Your task to perform on an android device: Open Wikipedia Image 0: 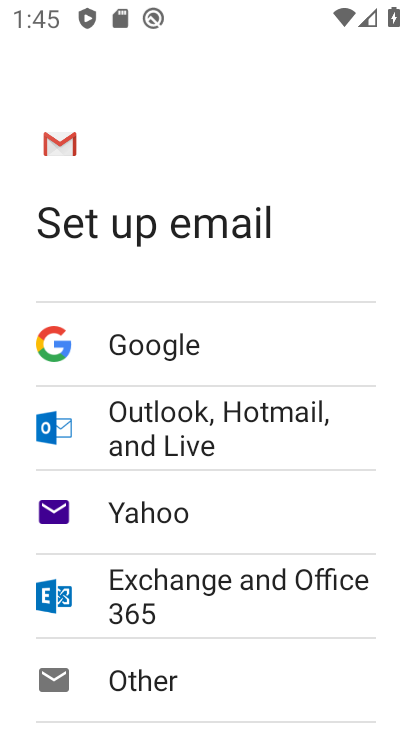
Step 0: press back button
Your task to perform on an android device: Open Wikipedia Image 1: 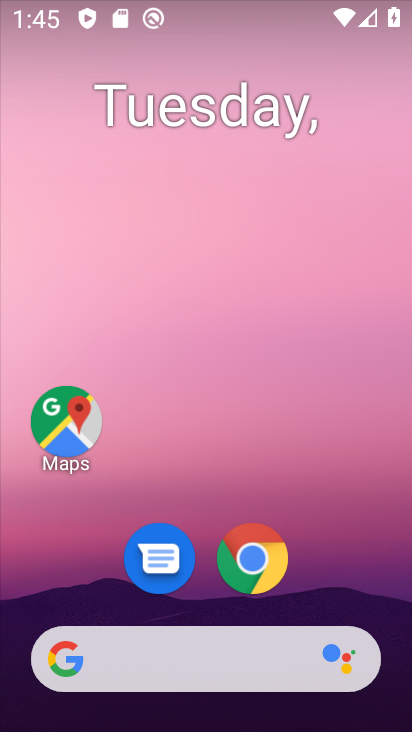
Step 1: click (239, 563)
Your task to perform on an android device: Open Wikipedia Image 2: 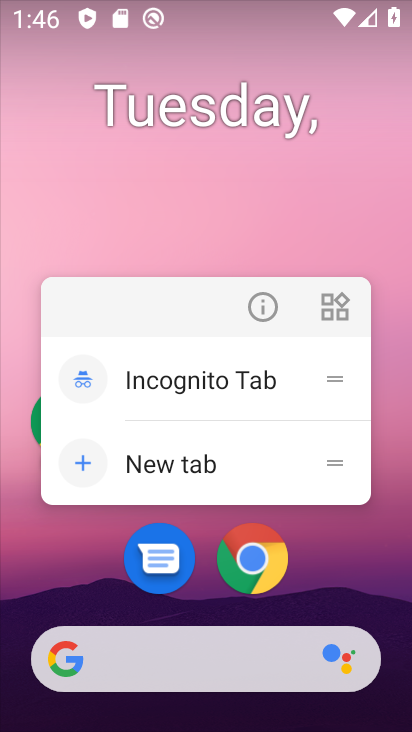
Step 2: click (258, 550)
Your task to perform on an android device: Open Wikipedia Image 3: 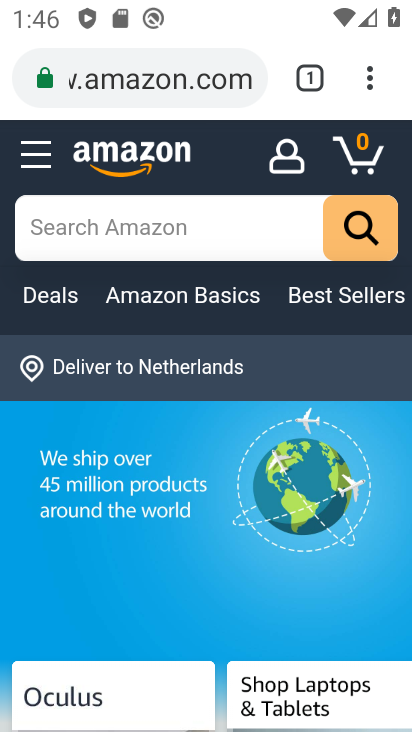
Step 3: click (301, 74)
Your task to perform on an android device: Open Wikipedia Image 4: 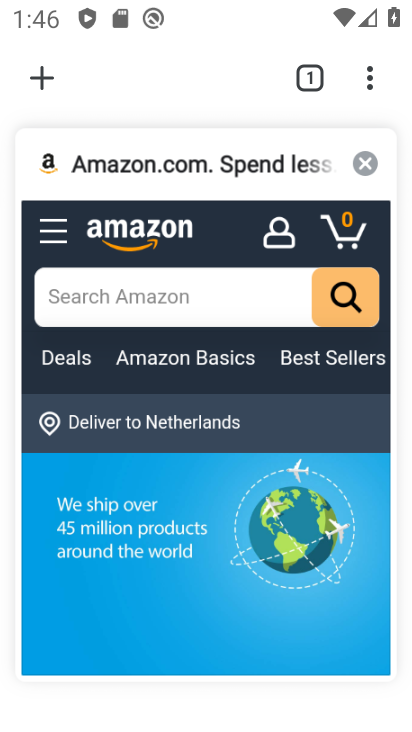
Step 4: click (40, 67)
Your task to perform on an android device: Open Wikipedia Image 5: 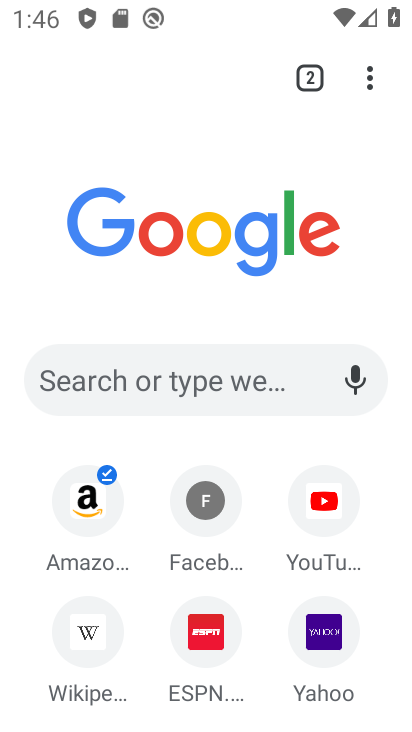
Step 5: click (86, 634)
Your task to perform on an android device: Open Wikipedia Image 6: 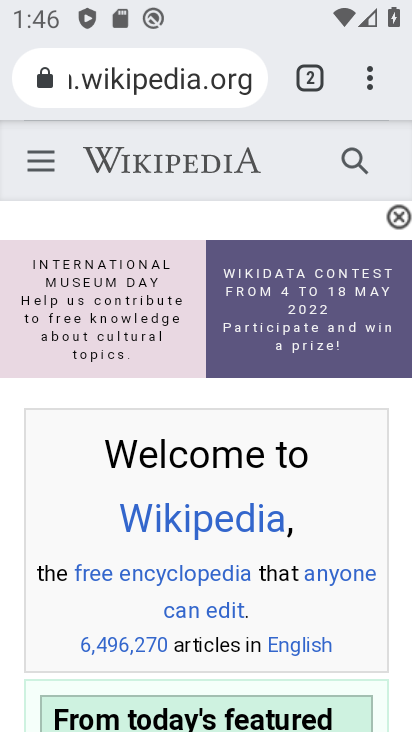
Step 6: task complete